Your task to perform on an android device: Open my contact list Image 0: 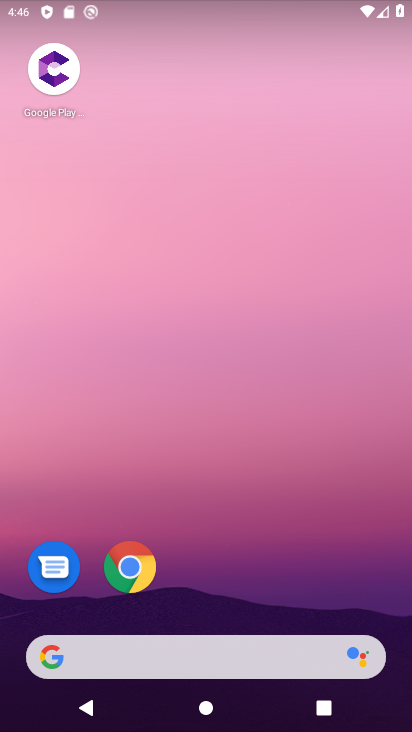
Step 0: drag from (307, 498) to (288, 2)
Your task to perform on an android device: Open my contact list Image 1: 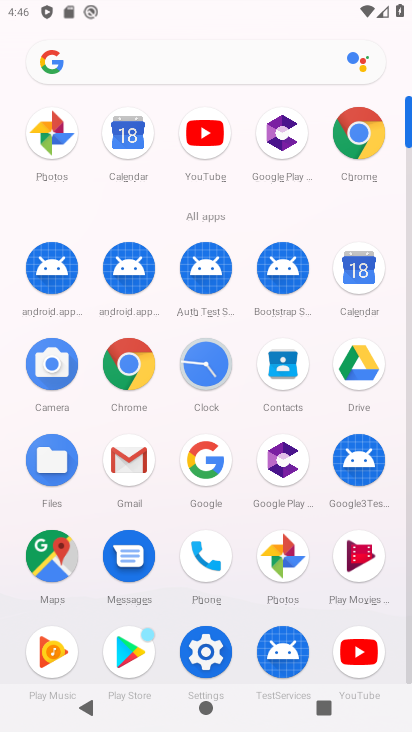
Step 1: click (286, 364)
Your task to perform on an android device: Open my contact list Image 2: 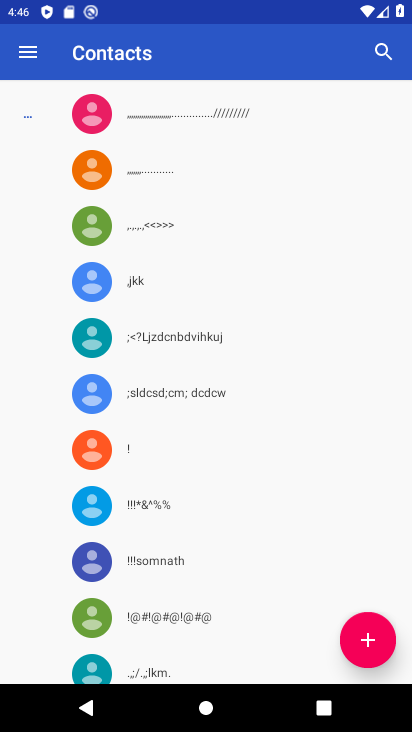
Step 2: task complete